Your task to perform on an android device: Go to ESPN.com Image 0: 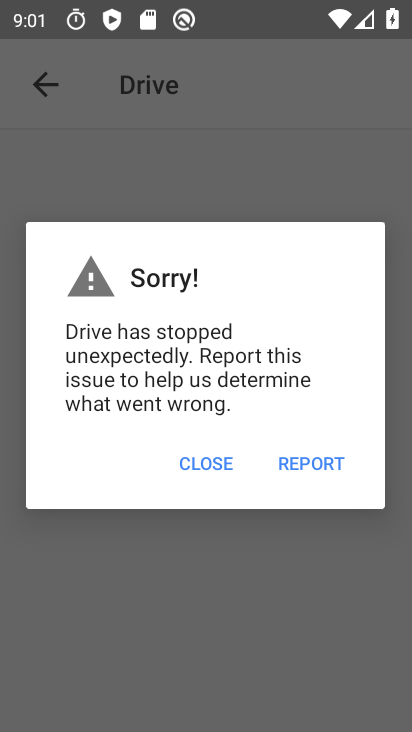
Step 0: press home button
Your task to perform on an android device: Go to ESPN.com Image 1: 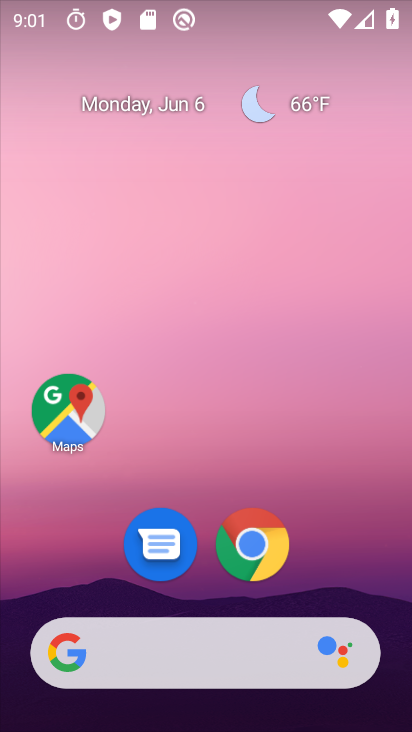
Step 1: click (265, 553)
Your task to perform on an android device: Go to ESPN.com Image 2: 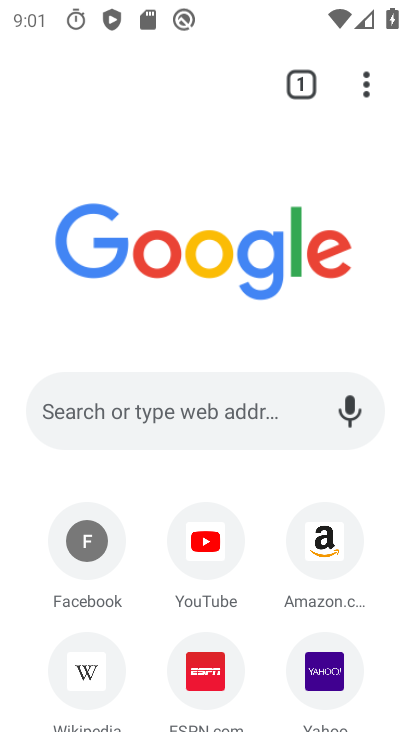
Step 2: click (223, 673)
Your task to perform on an android device: Go to ESPN.com Image 3: 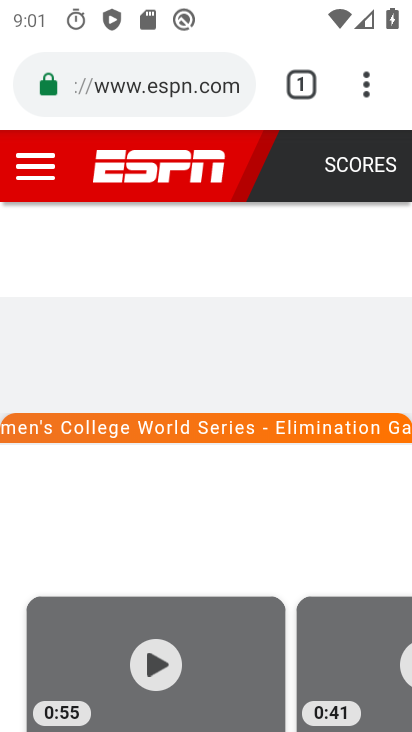
Step 3: task complete